Your task to perform on an android device: Is it going to rain today? Image 0: 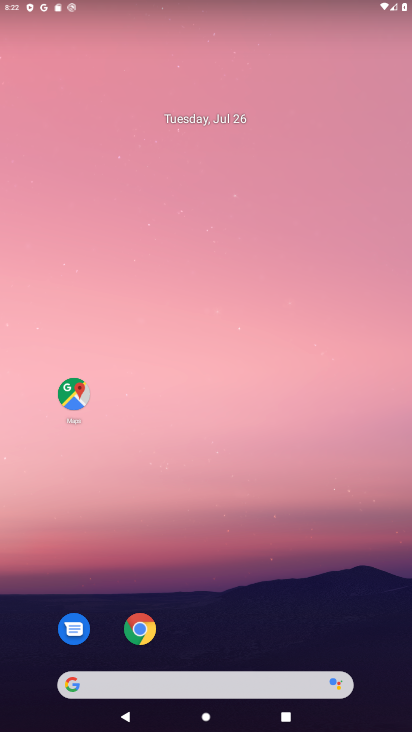
Step 0: press home button
Your task to perform on an android device: Is it going to rain today? Image 1: 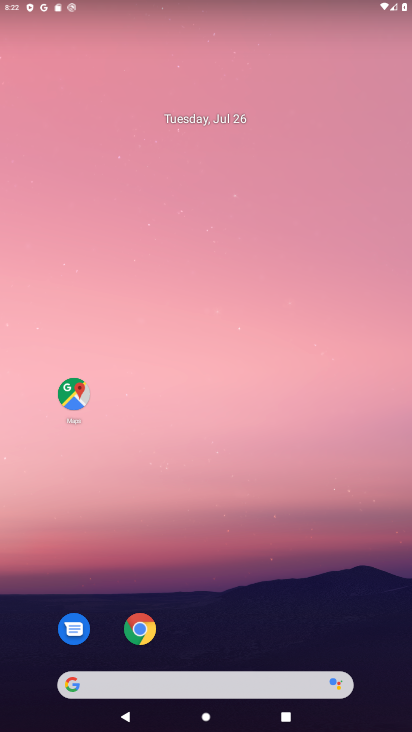
Step 1: click (134, 637)
Your task to perform on an android device: Is it going to rain today? Image 2: 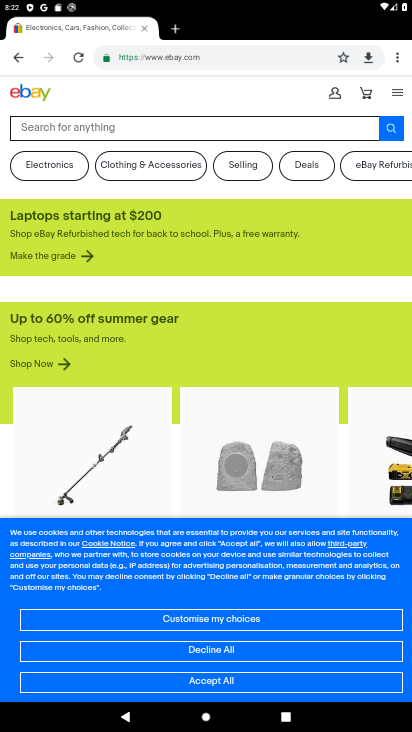
Step 2: click (201, 53)
Your task to perform on an android device: Is it going to rain today? Image 3: 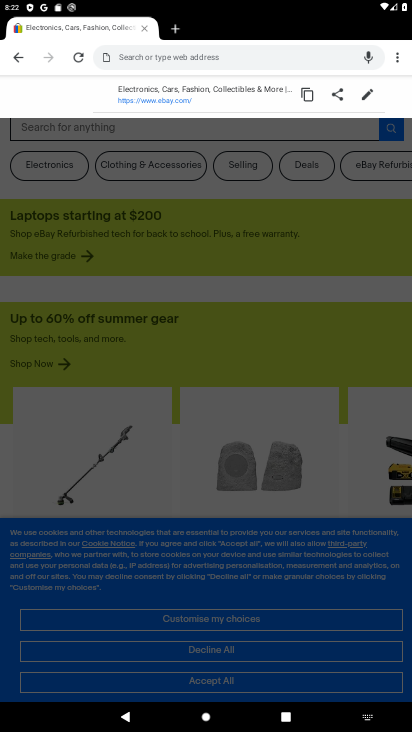
Step 3: type "Is it going to rain today?"
Your task to perform on an android device: Is it going to rain today? Image 4: 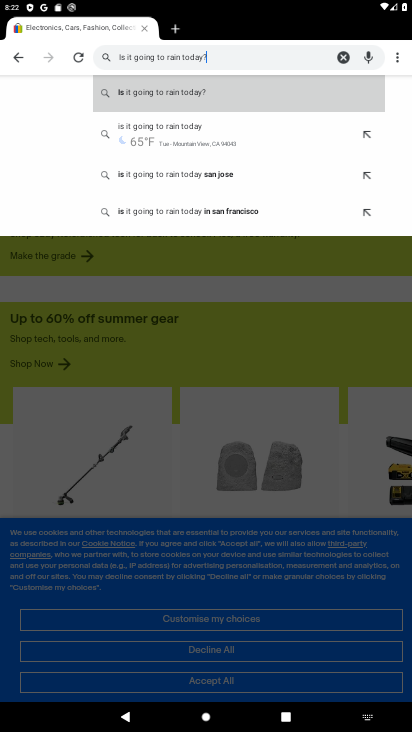
Step 4: type ""
Your task to perform on an android device: Is it going to rain today? Image 5: 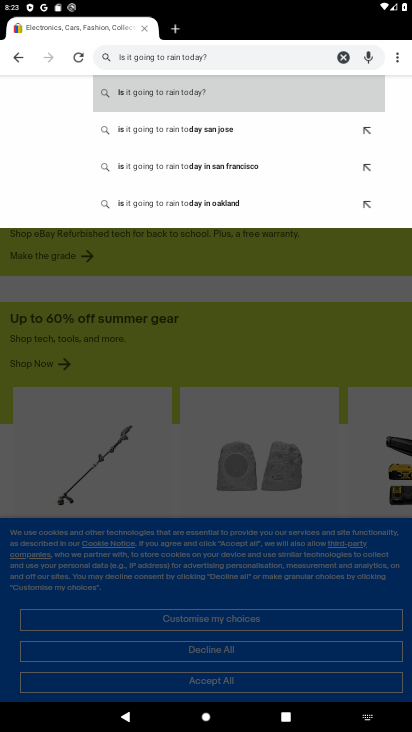
Step 5: click (315, 102)
Your task to perform on an android device: Is it going to rain today? Image 6: 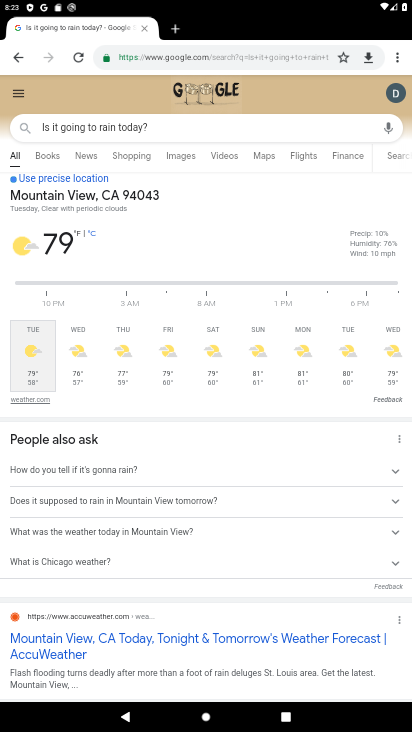
Step 6: task complete